Your task to perform on an android device: Empty the shopping cart on newegg.com. Search for beats solo 3 on newegg.com, select the first entry, and add it to the cart. Image 0: 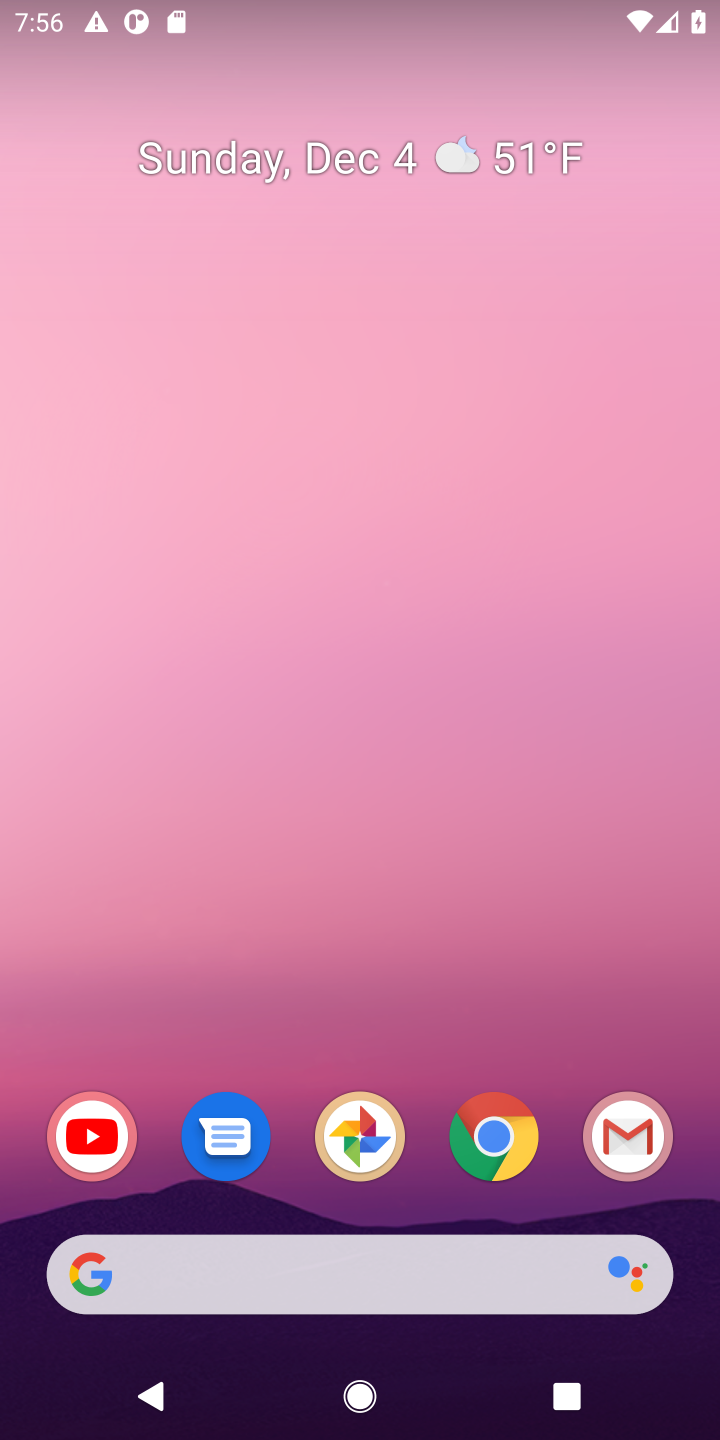
Step 0: click (495, 1148)
Your task to perform on an android device: Empty the shopping cart on newegg.com. Search for beats solo 3 on newegg.com, select the first entry, and add it to the cart. Image 1: 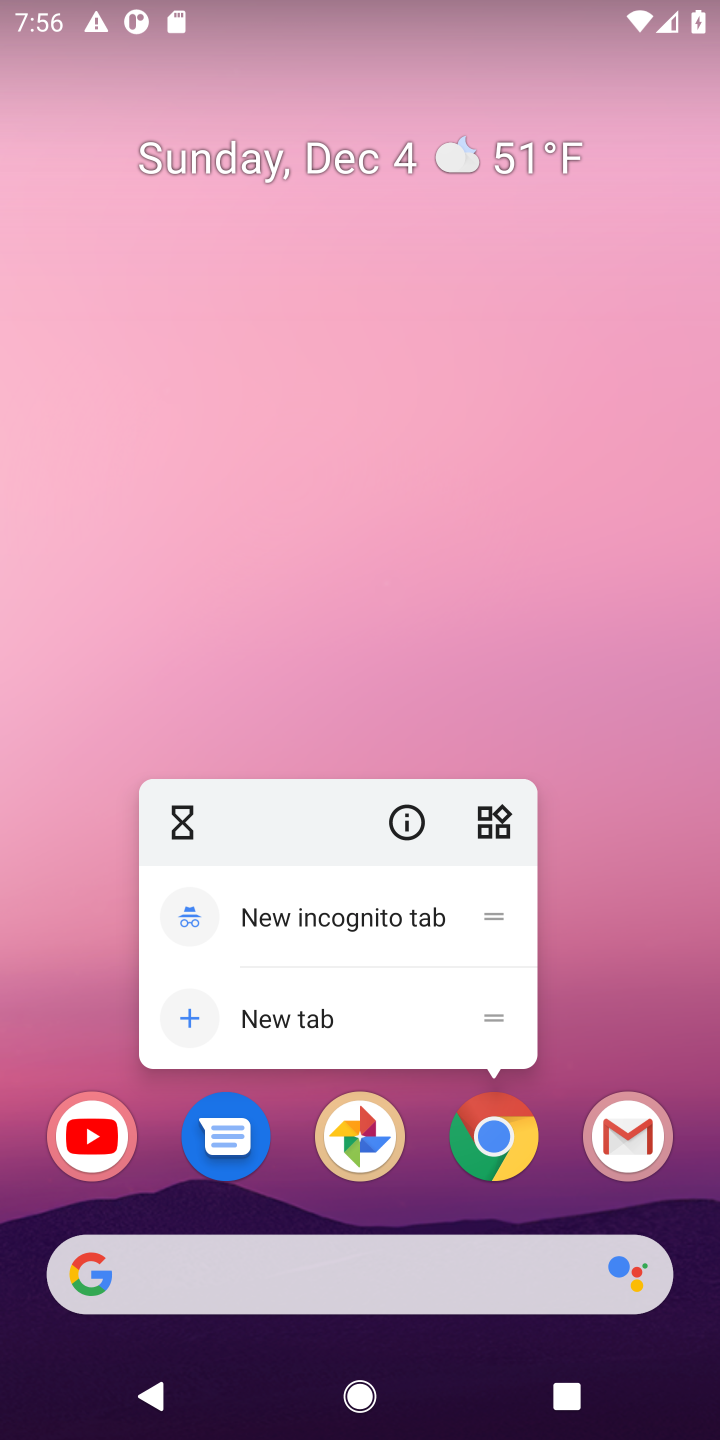
Step 1: click (495, 1148)
Your task to perform on an android device: Empty the shopping cart on newegg.com. Search for beats solo 3 on newegg.com, select the first entry, and add it to the cart. Image 2: 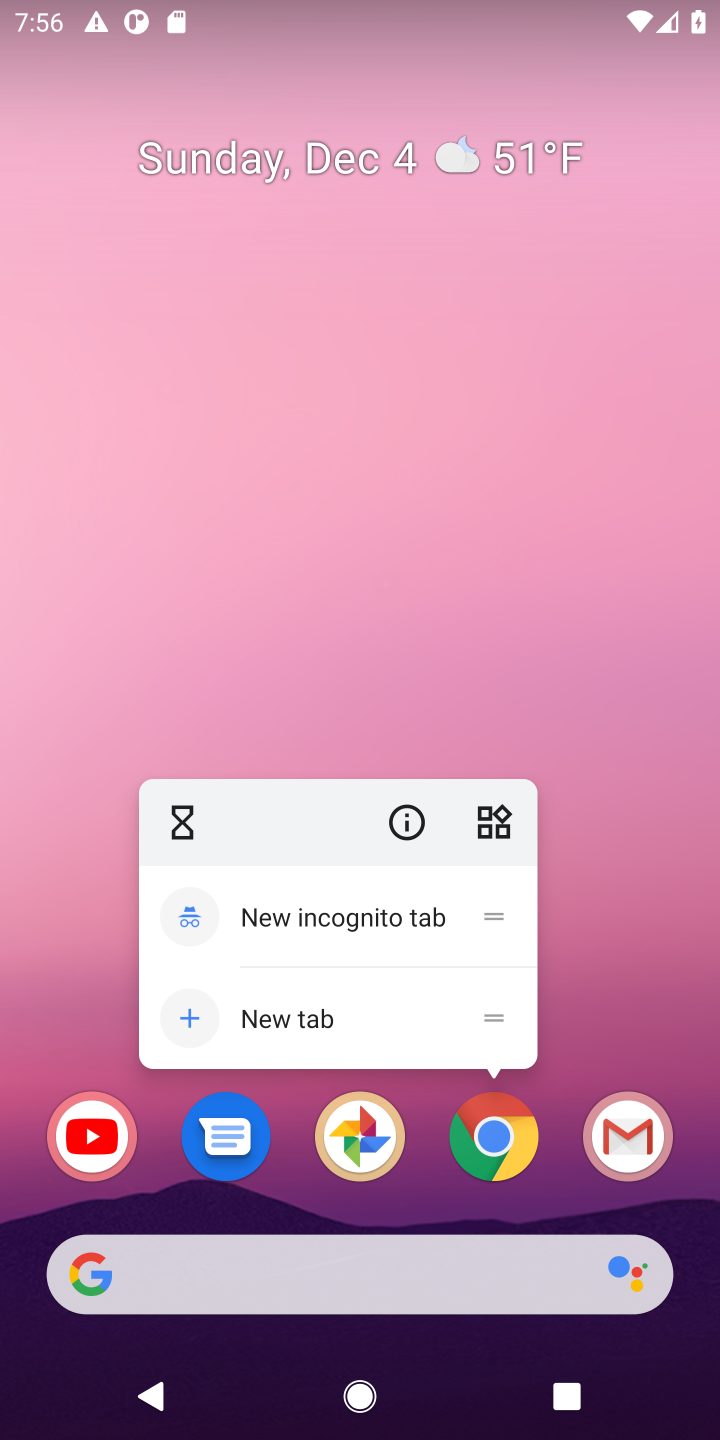
Step 2: click (495, 1148)
Your task to perform on an android device: Empty the shopping cart on newegg.com. Search for beats solo 3 on newegg.com, select the first entry, and add it to the cart. Image 3: 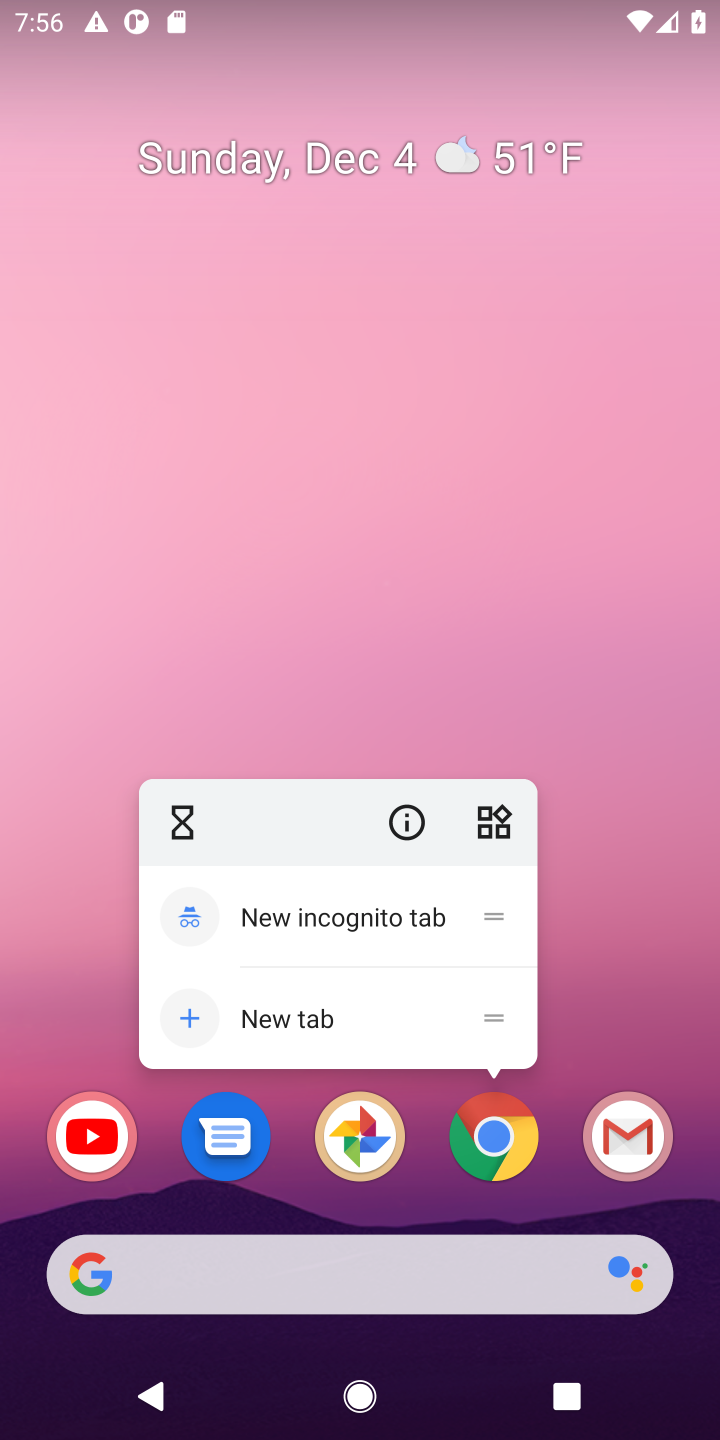
Step 3: click (507, 1148)
Your task to perform on an android device: Empty the shopping cart on newegg.com. Search for beats solo 3 on newegg.com, select the first entry, and add it to the cart. Image 4: 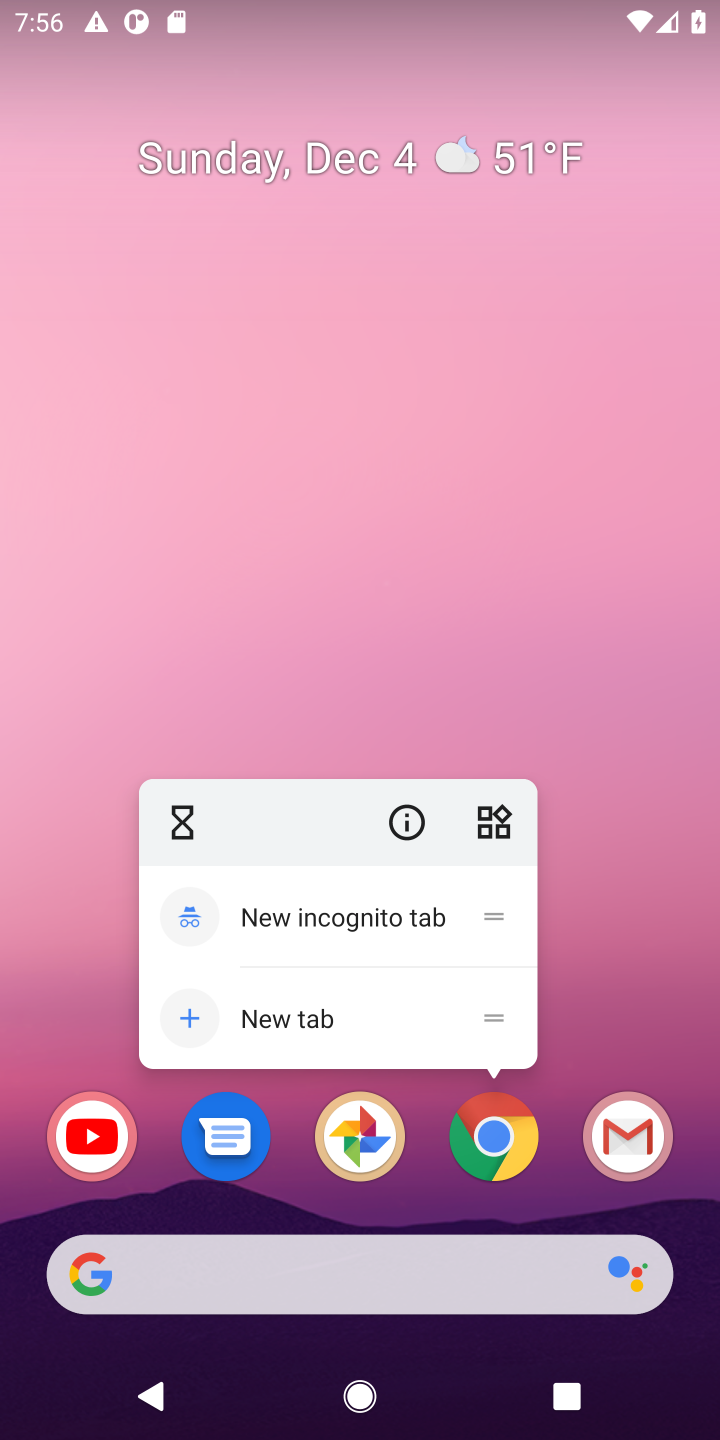
Step 4: click (601, 986)
Your task to perform on an android device: Empty the shopping cart on newegg.com. Search for beats solo 3 on newegg.com, select the first entry, and add it to the cart. Image 5: 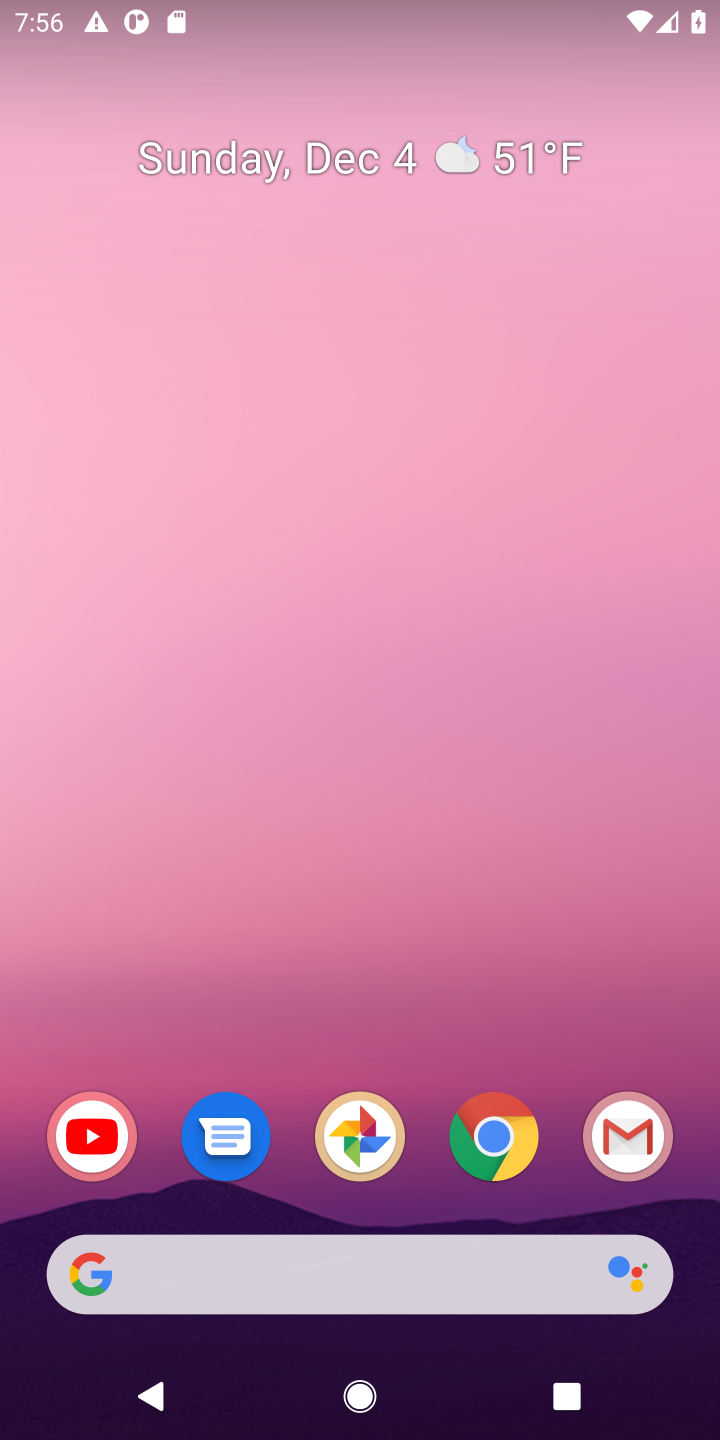
Step 5: click (494, 1136)
Your task to perform on an android device: Empty the shopping cart on newegg.com. Search for beats solo 3 on newegg.com, select the first entry, and add it to the cart. Image 6: 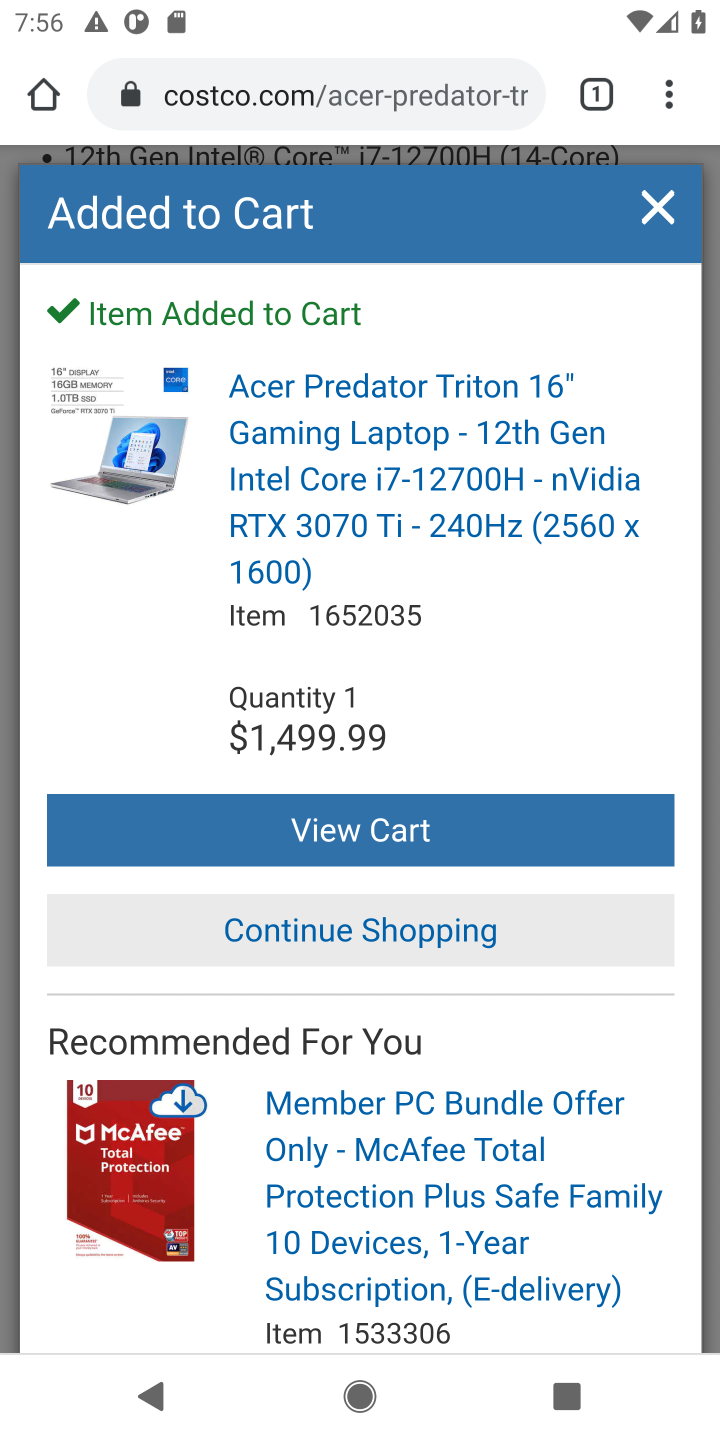
Step 6: click (302, 91)
Your task to perform on an android device: Empty the shopping cart on newegg.com. Search for beats solo 3 on newegg.com, select the first entry, and add it to the cart. Image 7: 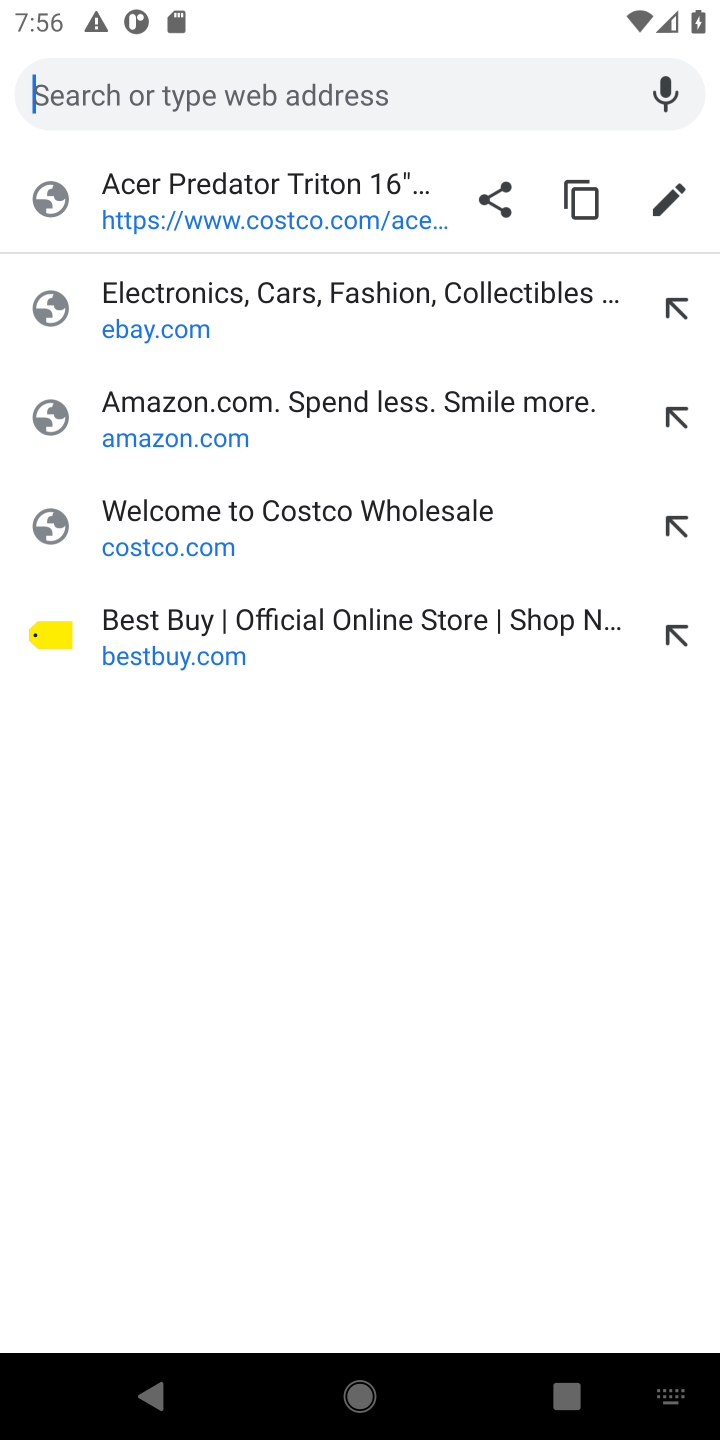
Step 7: type "newegg.com"
Your task to perform on an android device: Empty the shopping cart on newegg.com. Search for beats solo 3 on newegg.com, select the first entry, and add it to the cart. Image 8: 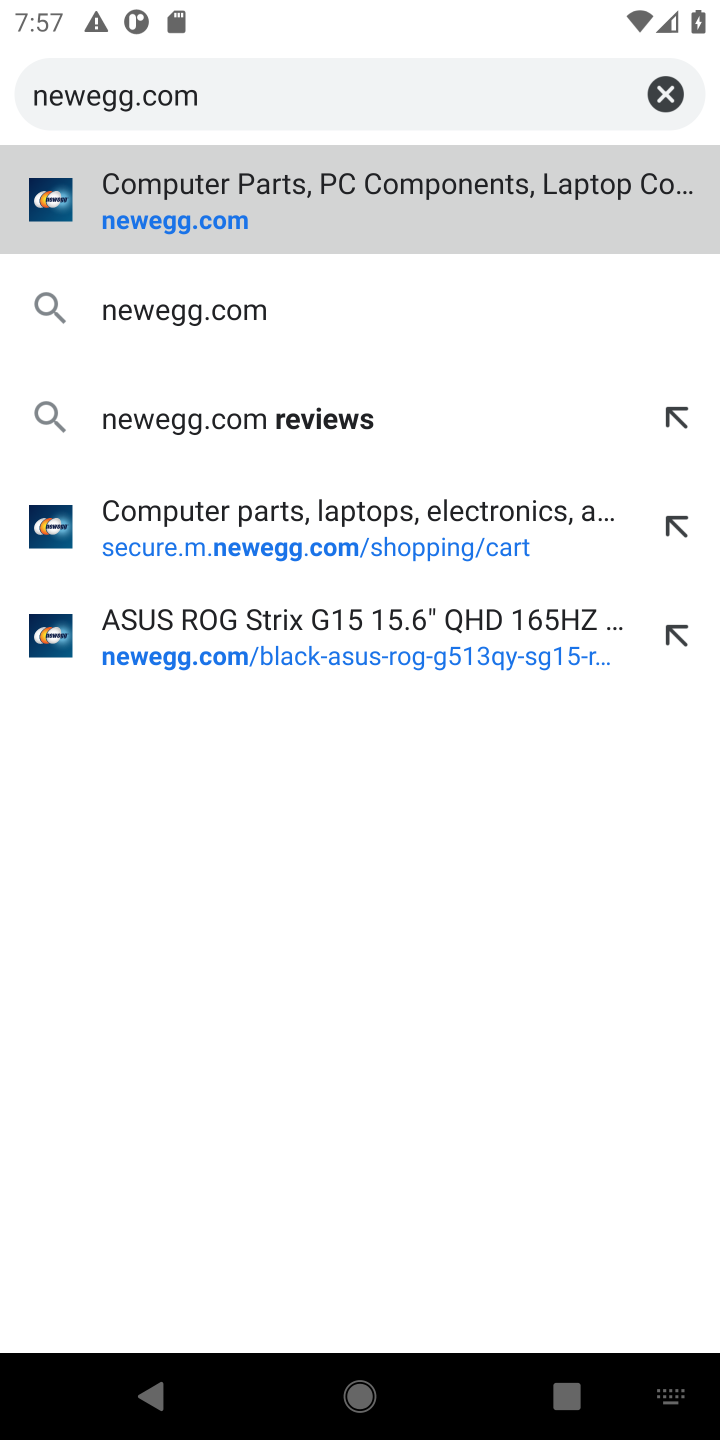
Step 8: click (182, 216)
Your task to perform on an android device: Empty the shopping cart on newegg.com. Search for beats solo 3 on newegg.com, select the first entry, and add it to the cart. Image 9: 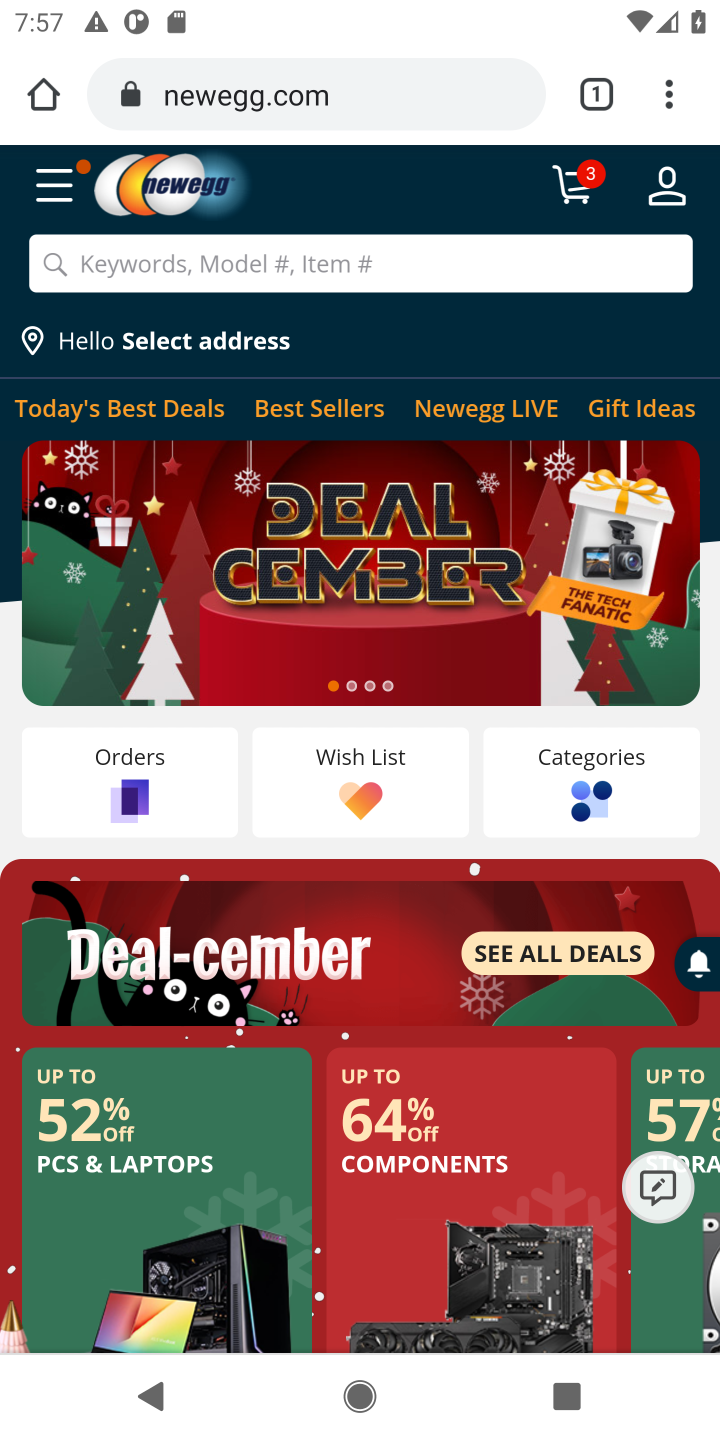
Step 9: click (573, 196)
Your task to perform on an android device: Empty the shopping cart on newegg.com. Search for beats solo 3 on newegg.com, select the first entry, and add it to the cart. Image 10: 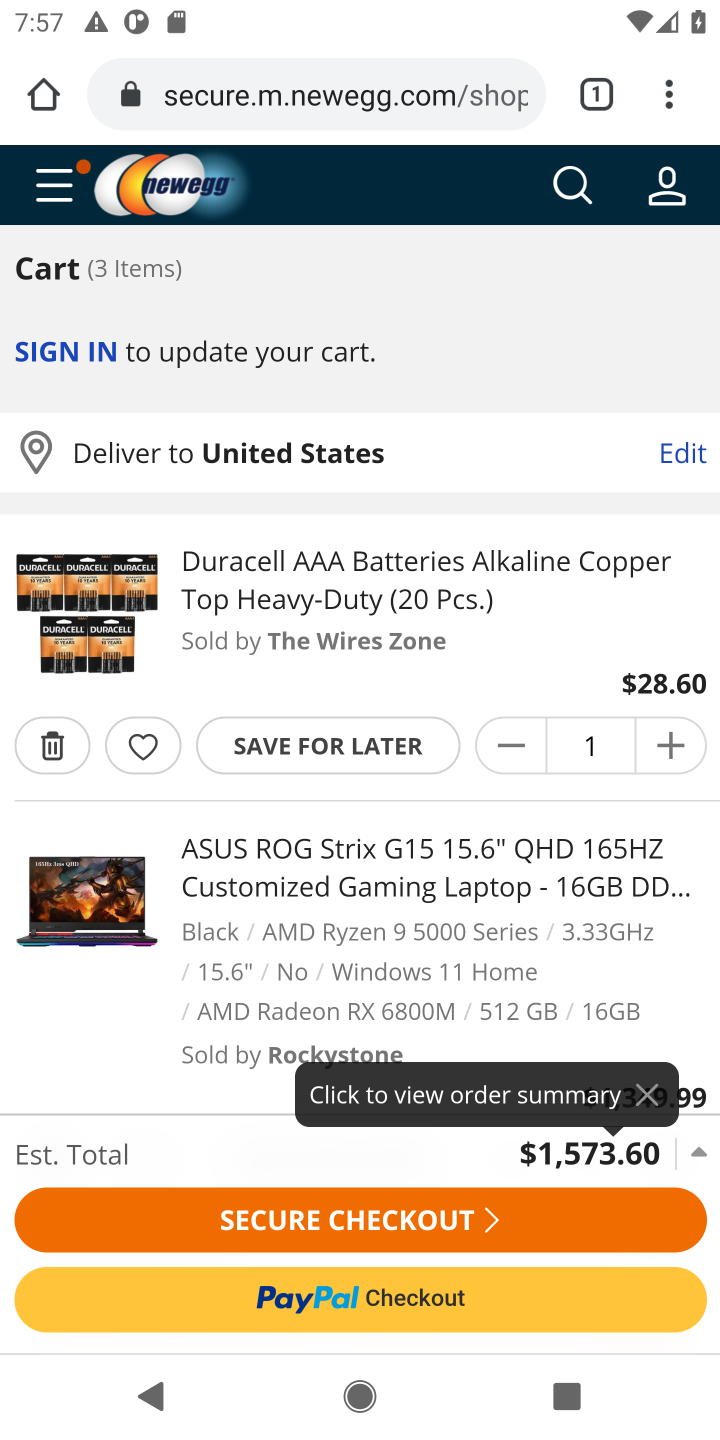
Step 10: click (56, 751)
Your task to perform on an android device: Empty the shopping cart on newegg.com. Search for beats solo 3 on newegg.com, select the first entry, and add it to the cart. Image 11: 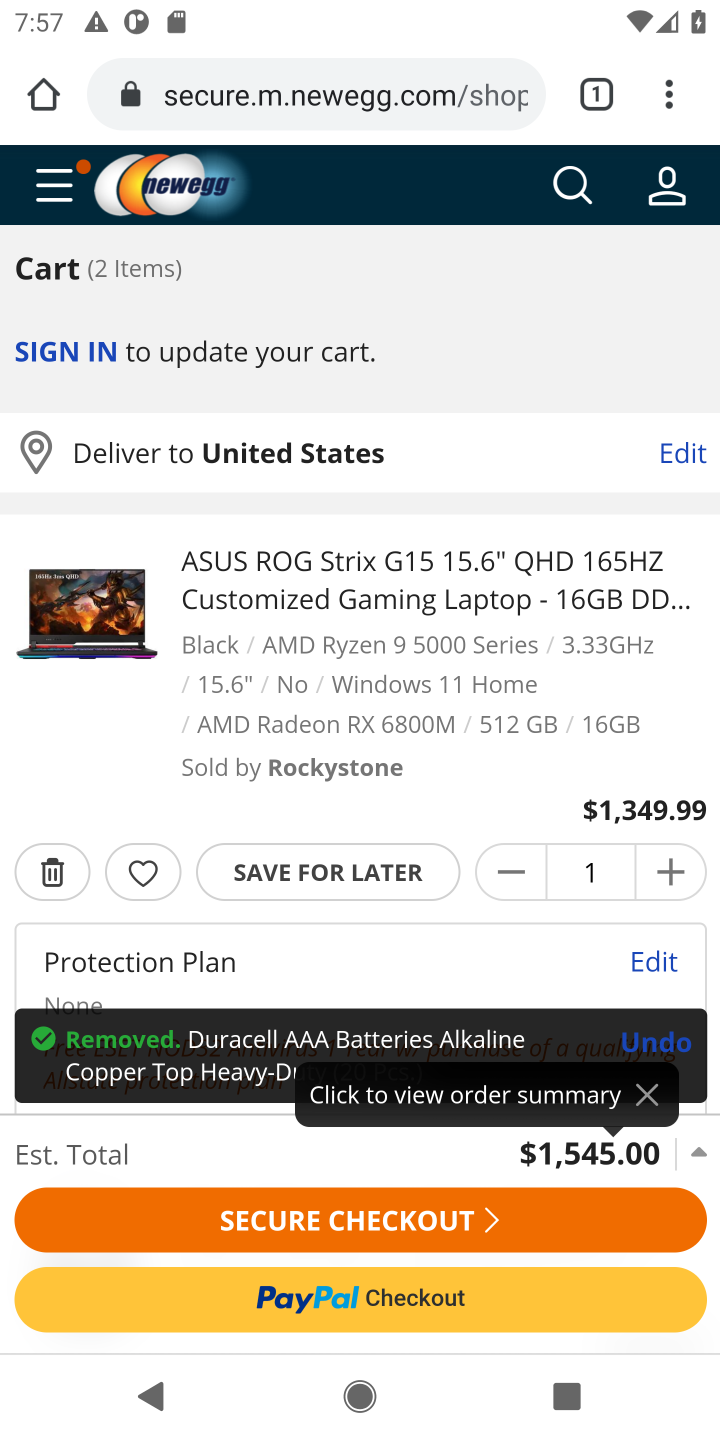
Step 11: click (57, 865)
Your task to perform on an android device: Empty the shopping cart on newegg.com. Search for beats solo 3 on newegg.com, select the first entry, and add it to the cart. Image 12: 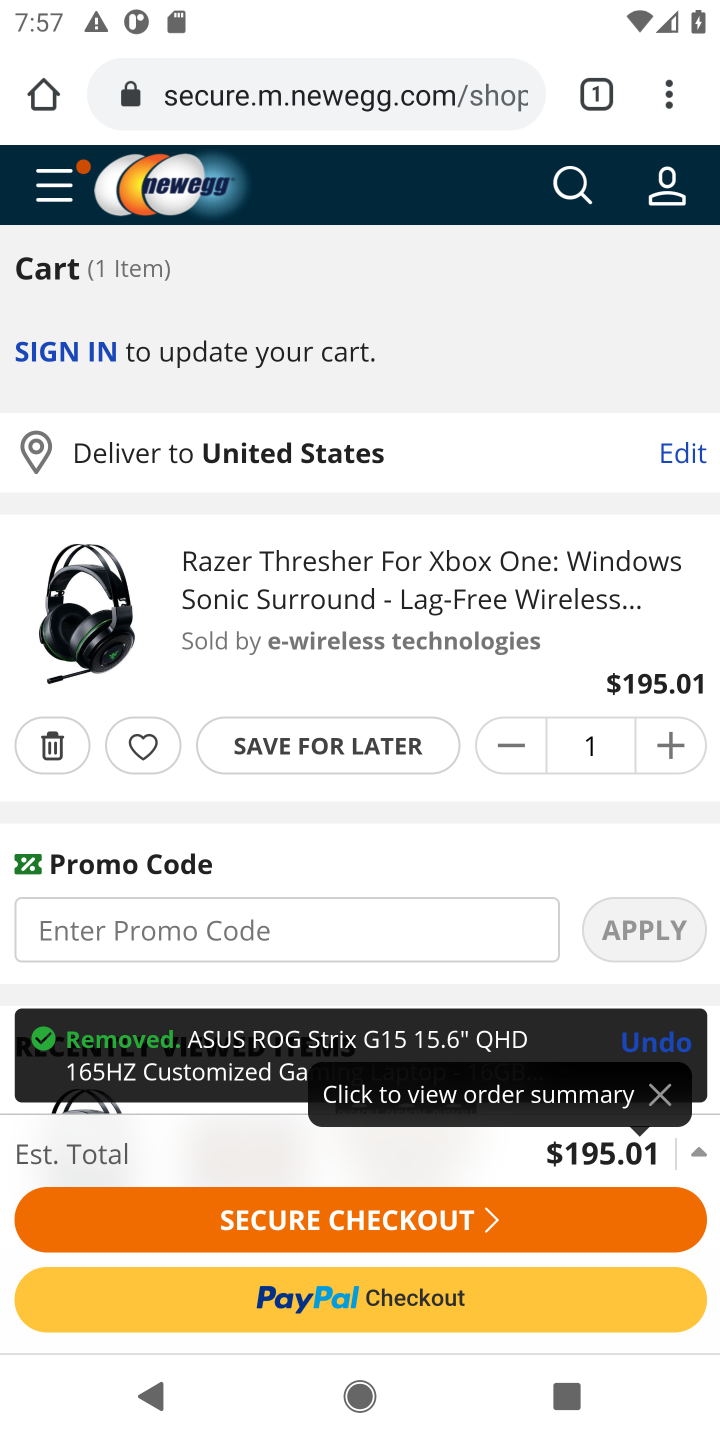
Step 12: click (51, 761)
Your task to perform on an android device: Empty the shopping cart on newegg.com. Search for beats solo 3 on newegg.com, select the first entry, and add it to the cart. Image 13: 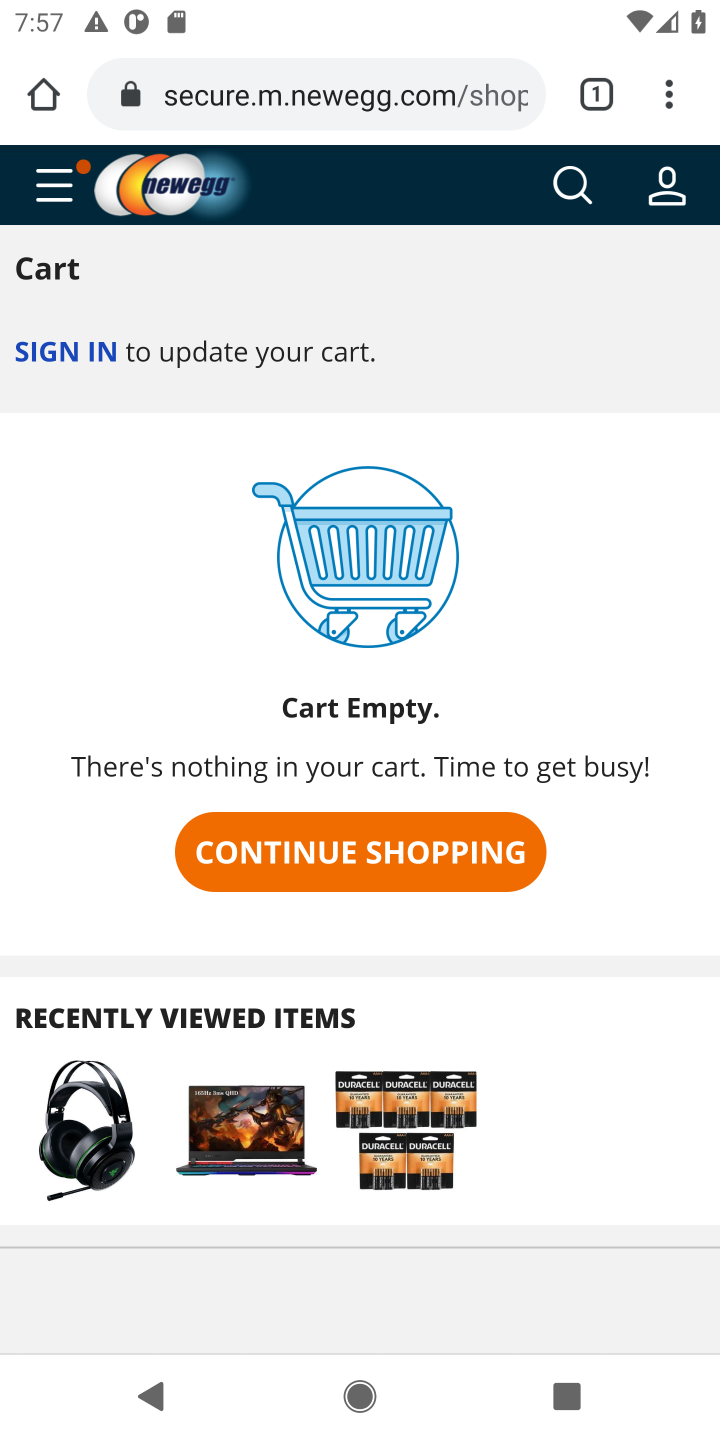
Step 13: click (580, 200)
Your task to perform on an android device: Empty the shopping cart on newegg.com. Search for beats solo 3 on newegg.com, select the first entry, and add it to the cart. Image 14: 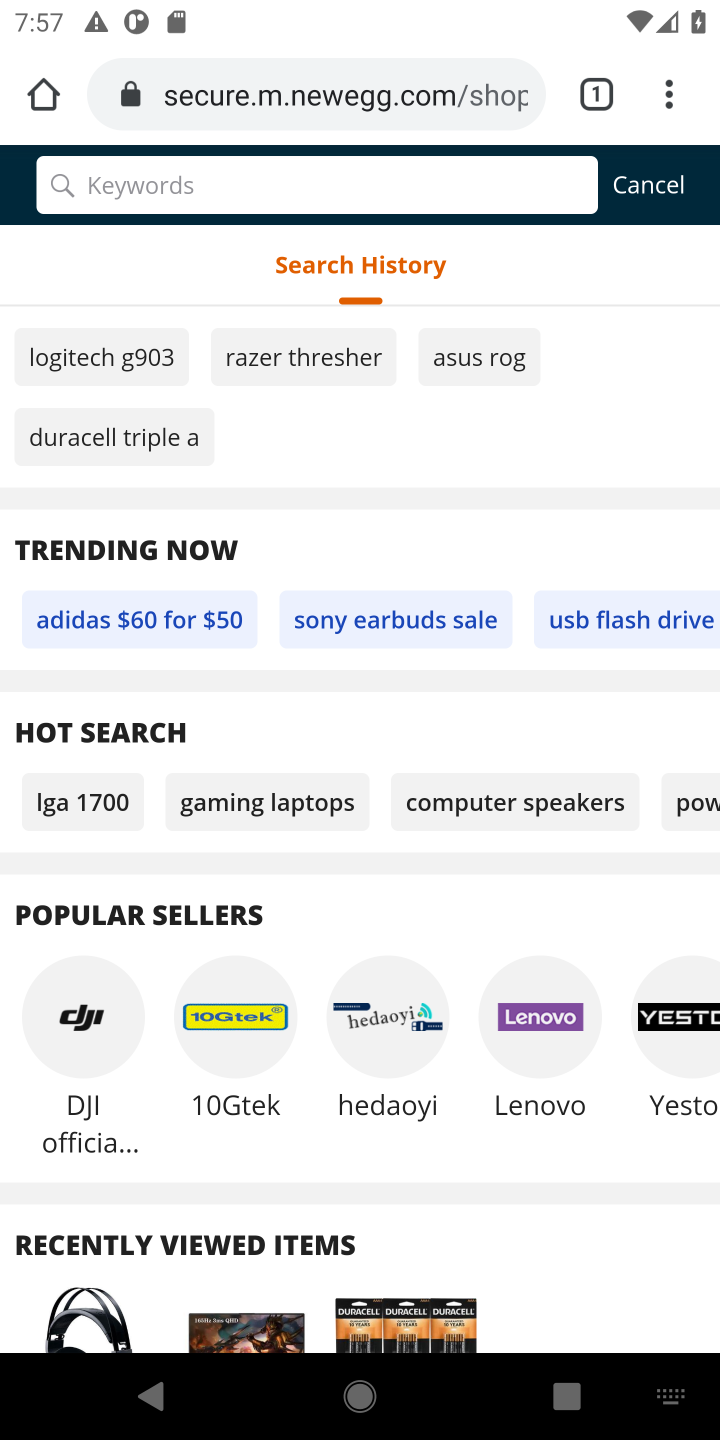
Step 14: type "beats solo 3"
Your task to perform on an android device: Empty the shopping cart on newegg.com. Search for beats solo 3 on newegg.com, select the first entry, and add it to the cart. Image 15: 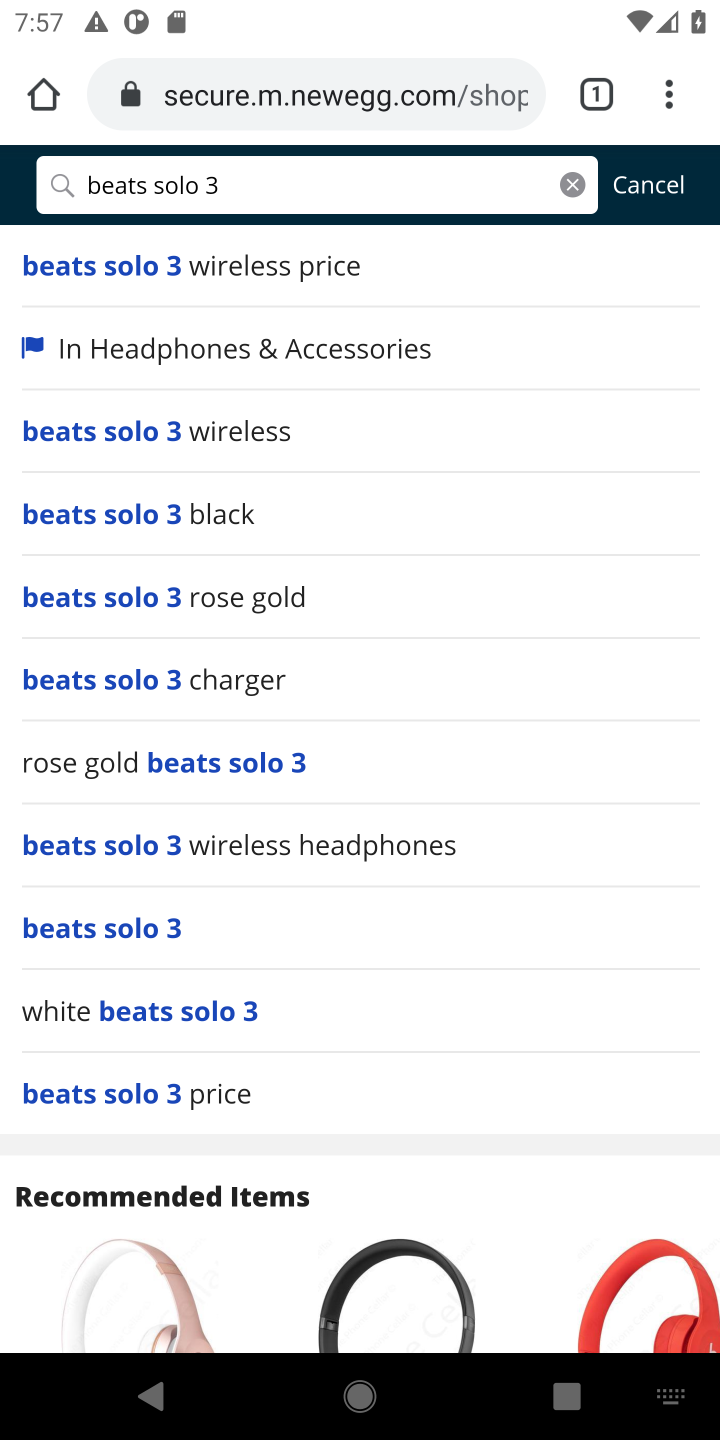
Step 15: click (108, 427)
Your task to perform on an android device: Empty the shopping cart on newegg.com. Search for beats solo 3 on newegg.com, select the first entry, and add it to the cart. Image 16: 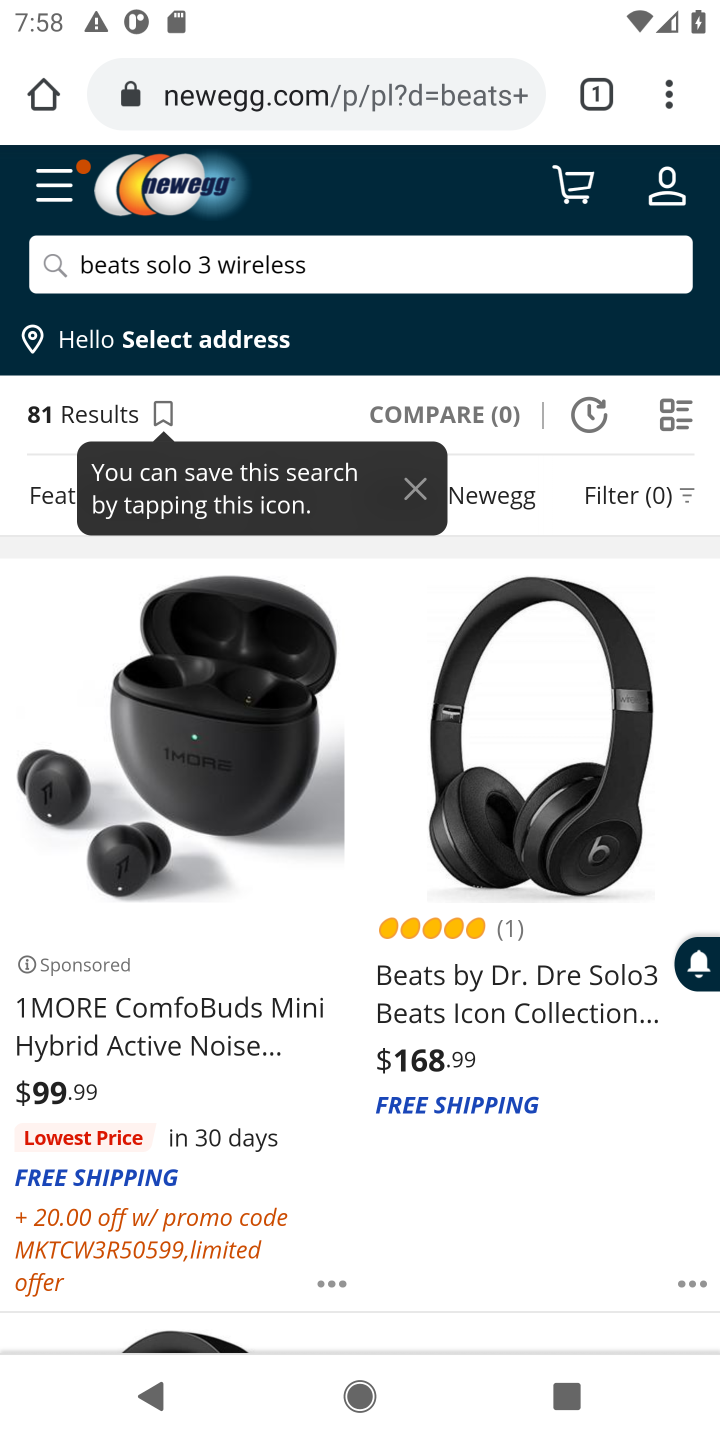
Step 16: task complete